Your task to perform on an android device: install app "Pluto TV - Live TV and Movies" Image 0: 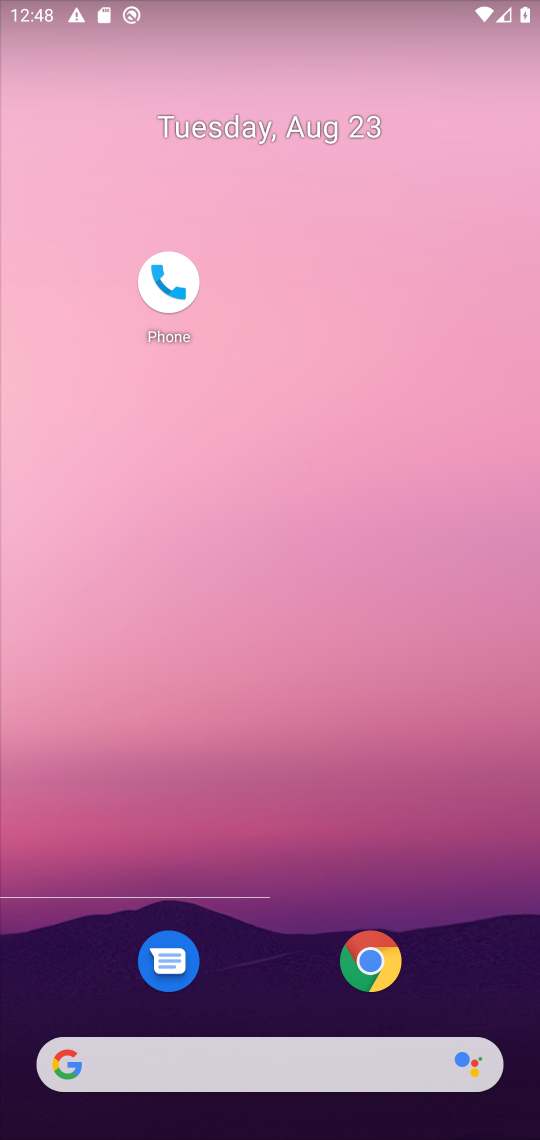
Step 0: drag from (297, 999) to (354, 14)
Your task to perform on an android device: install app "Pluto TV - Live TV and Movies" Image 1: 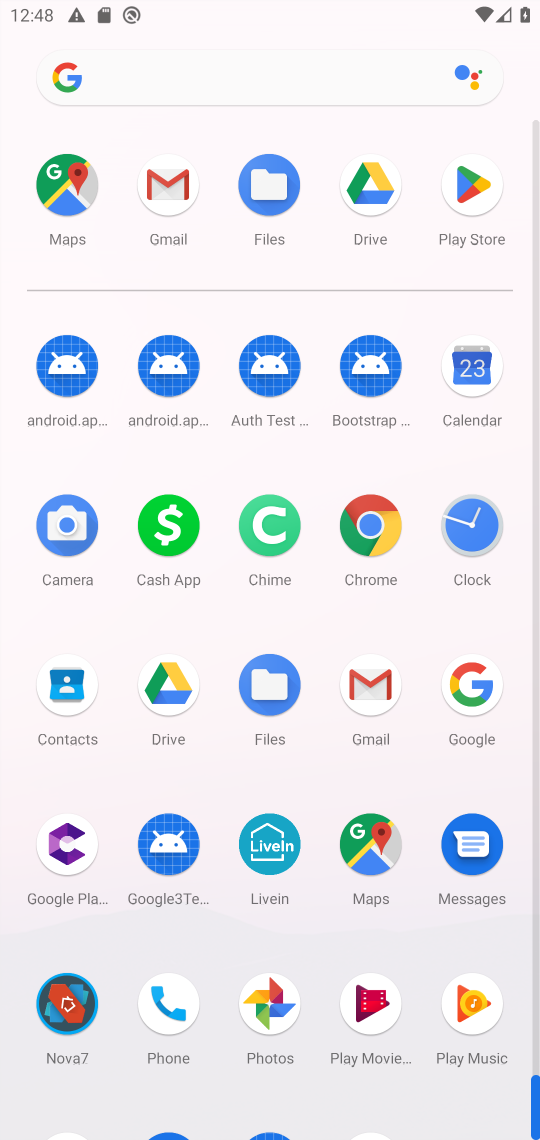
Step 1: click (477, 186)
Your task to perform on an android device: install app "Pluto TV - Live TV and Movies" Image 2: 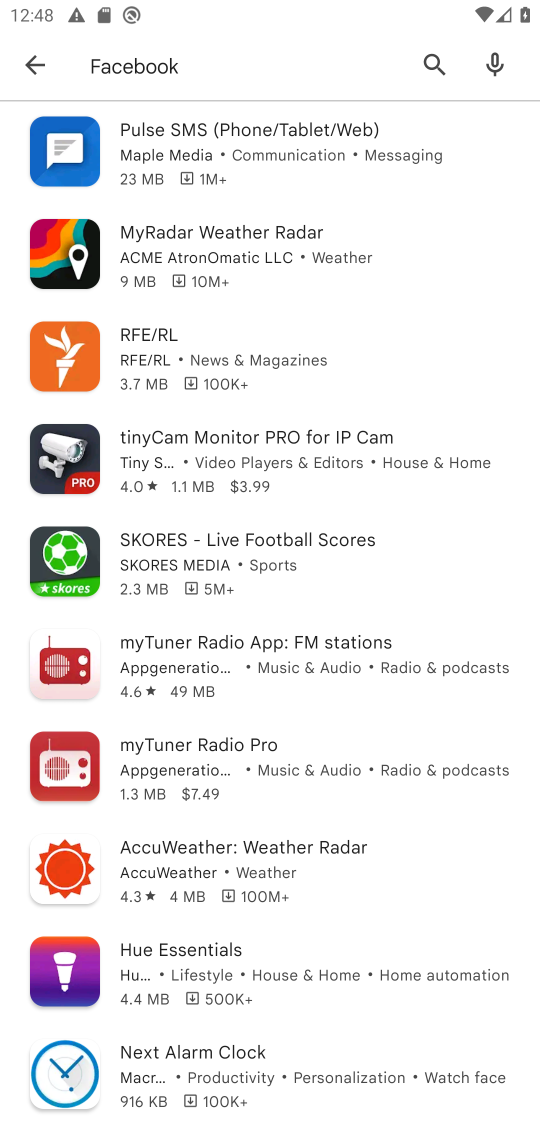
Step 2: click (418, 74)
Your task to perform on an android device: install app "Pluto TV - Live TV and Movies" Image 3: 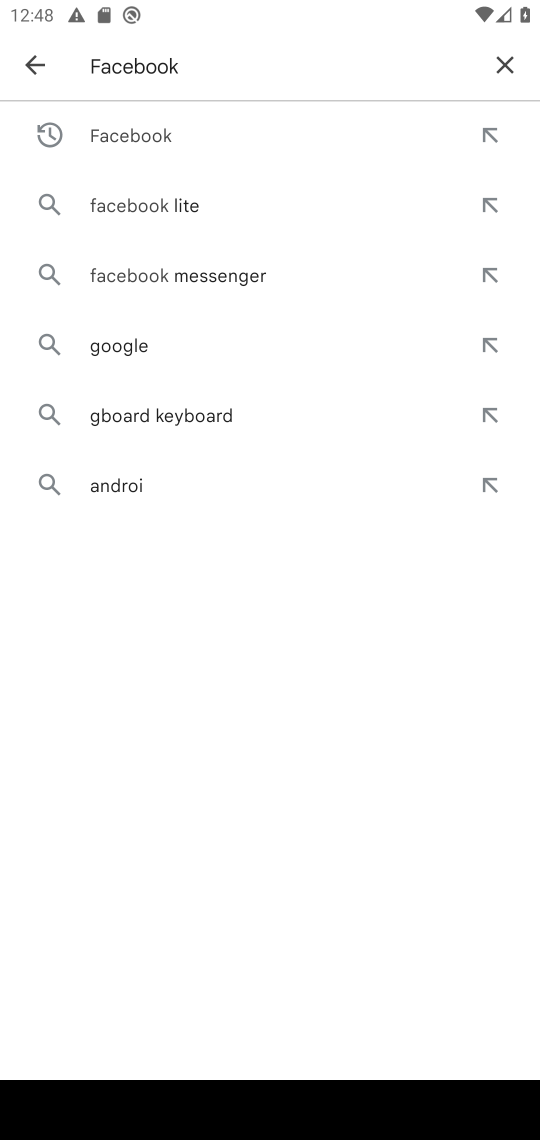
Step 3: click (502, 60)
Your task to perform on an android device: install app "Pluto TV - Live TV and Movies" Image 4: 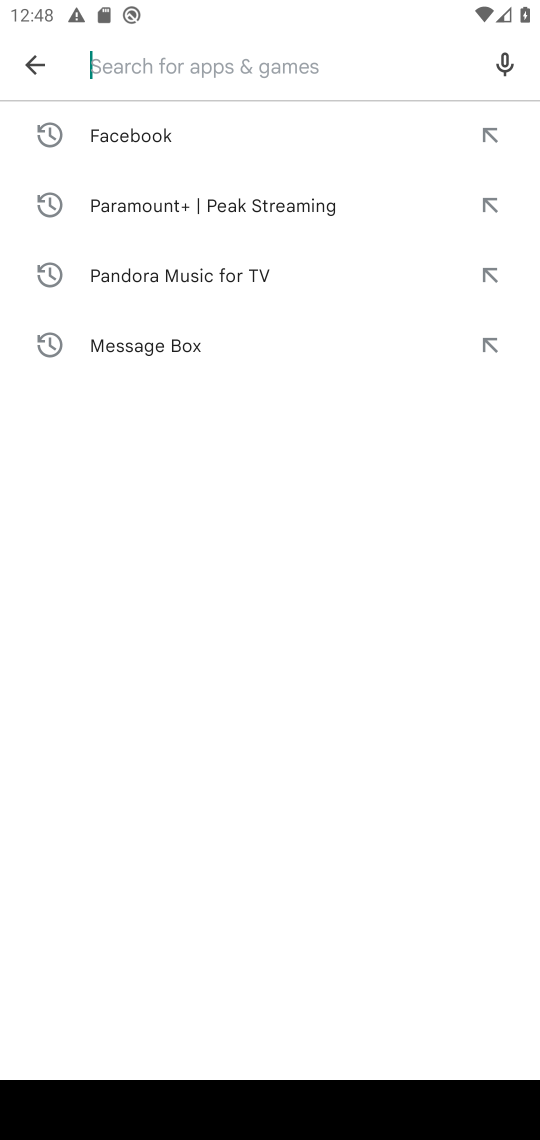
Step 4: type "pluto"
Your task to perform on an android device: install app "Pluto TV - Live TV and Movies" Image 5: 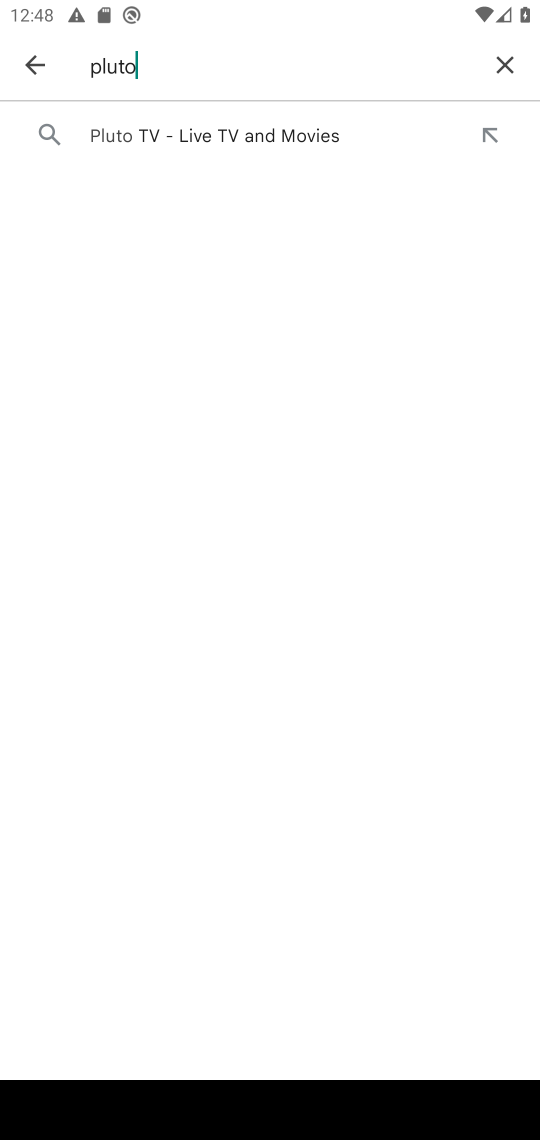
Step 5: click (207, 147)
Your task to perform on an android device: install app "Pluto TV - Live TV and Movies" Image 6: 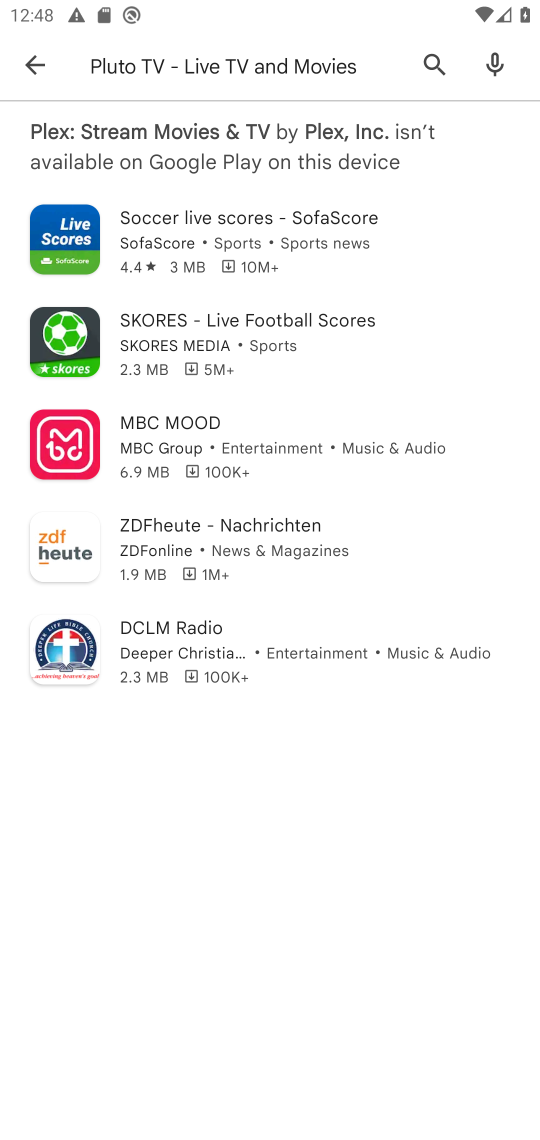
Step 6: task complete